Your task to perform on an android device: What's on my calendar today? Image 0: 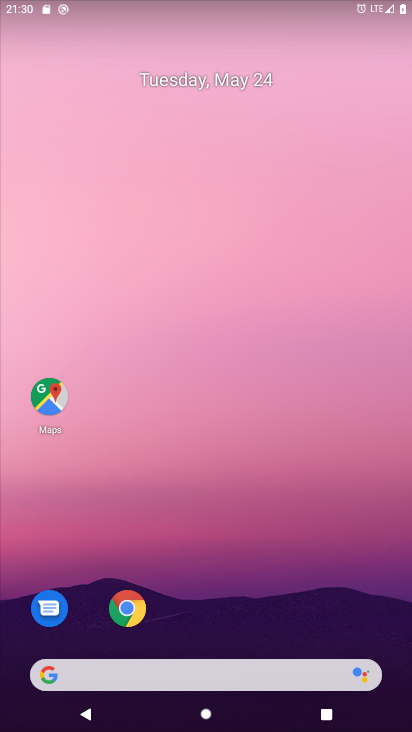
Step 0: drag from (194, 627) to (254, 3)
Your task to perform on an android device: What's on my calendar today? Image 1: 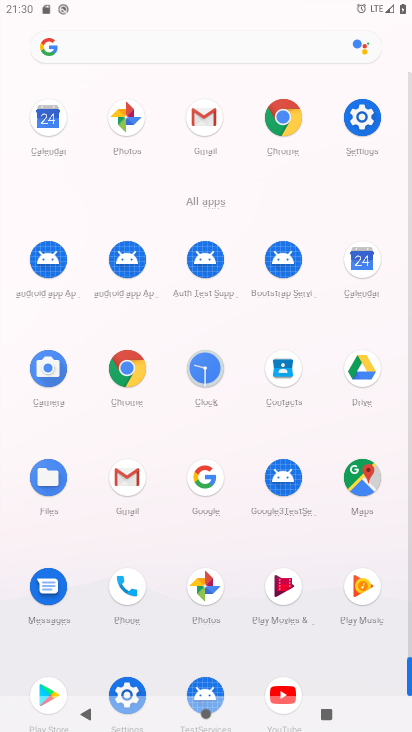
Step 1: click (368, 279)
Your task to perform on an android device: What's on my calendar today? Image 2: 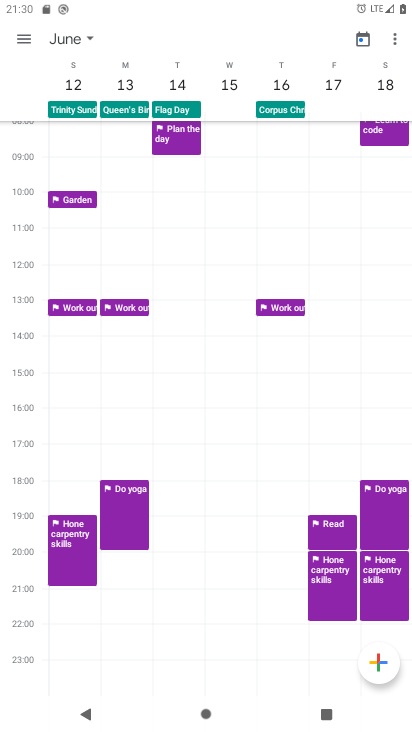
Step 2: drag from (82, 89) to (399, 97)
Your task to perform on an android device: What's on my calendar today? Image 3: 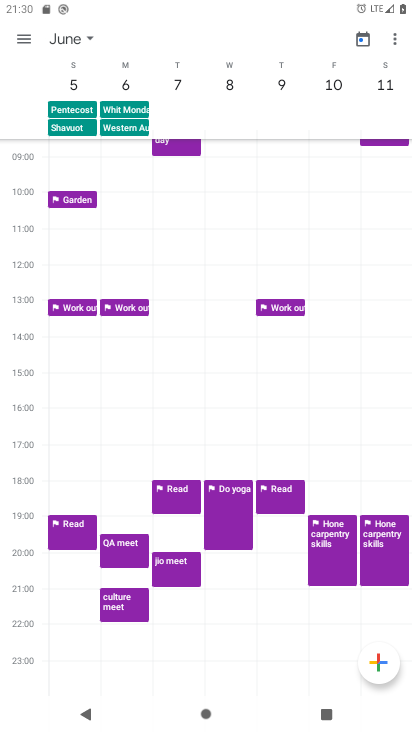
Step 3: drag from (81, 105) to (401, 90)
Your task to perform on an android device: What's on my calendar today? Image 4: 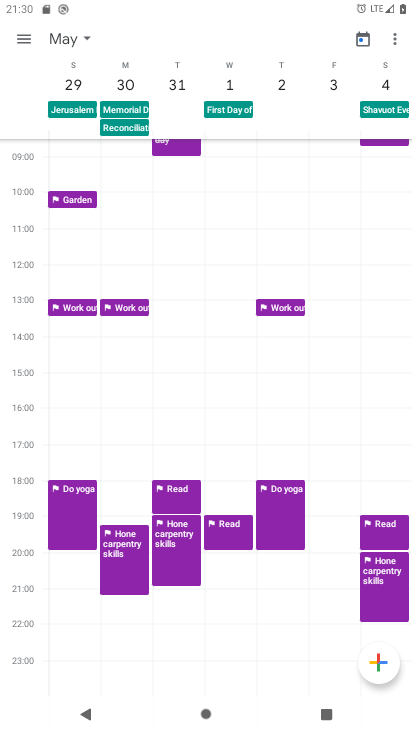
Step 4: drag from (110, 102) to (401, 117)
Your task to perform on an android device: What's on my calendar today? Image 5: 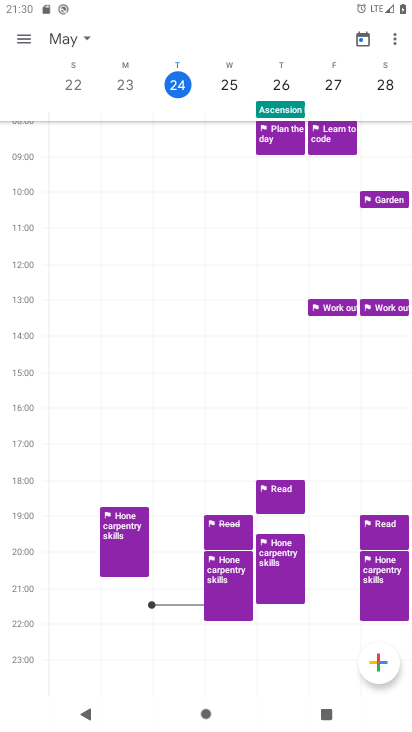
Step 5: click (15, 38)
Your task to perform on an android device: What's on my calendar today? Image 6: 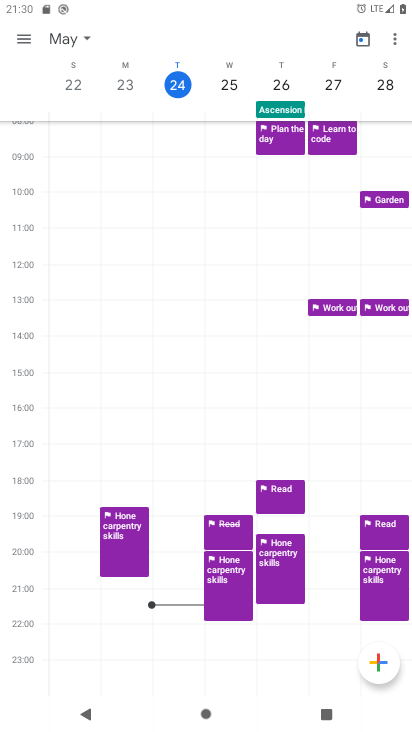
Step 6: click (20, 35)
Your task to perform on an android device: What's on my calendar today? Image 7: 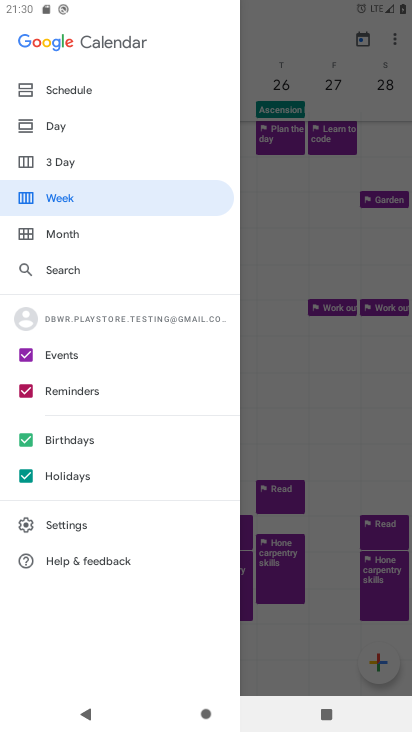
Step 7: click (48, 128)
Your task to perform on an android device: What's on my calendar today? Image 8: 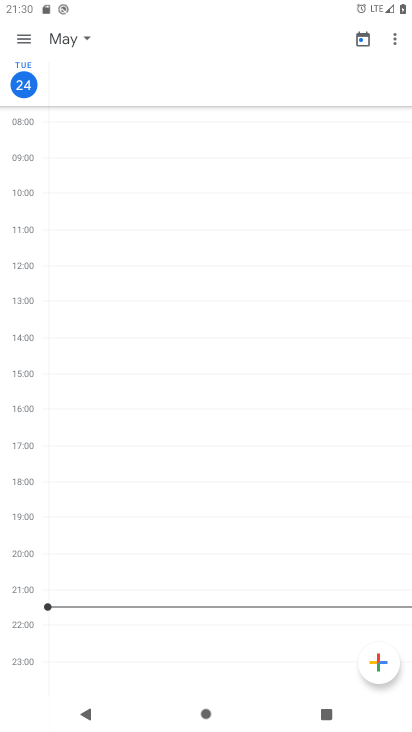
Step 8: task complete